Your task to perform on an android device: Go to accessibility settings Image 0: 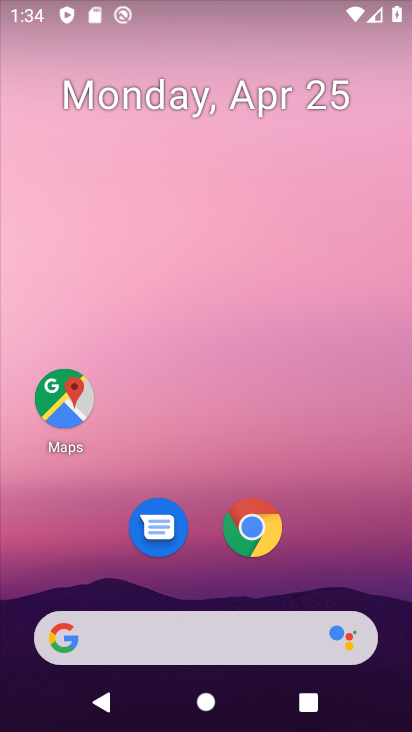
Step 0: drag from (387, 639) to (280, 1)
Your task to perform on an android device: Go to accessibility settings Image 1: 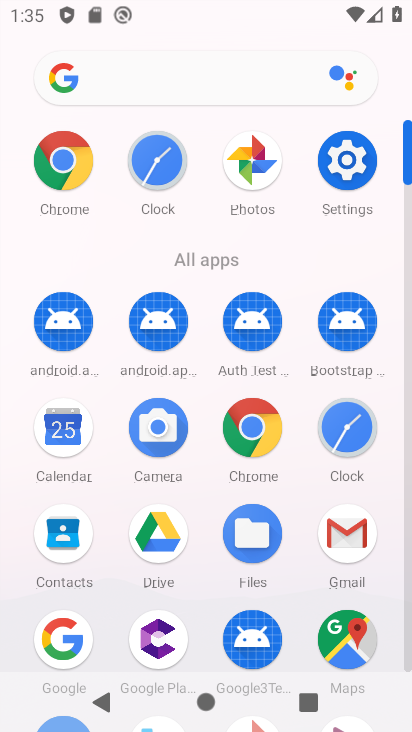
Step 1: click (348, 179)
Your task to perform on an android device: Go to accessibility settings Image 2: 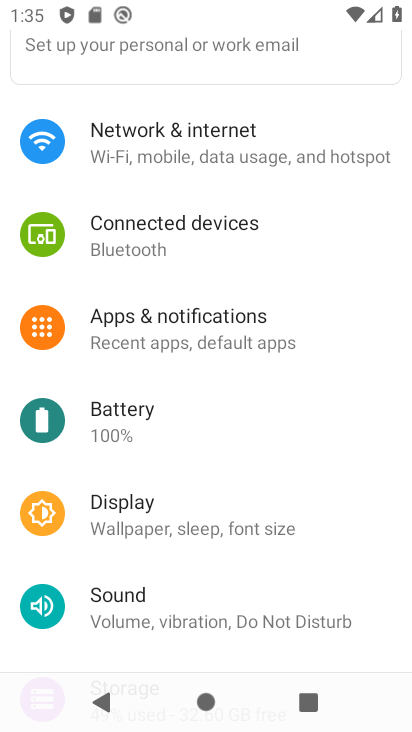
Step 2: drag from (178, 543) to (233, 73)
Your task to perform on an android device: Go to accessibility settings Image 3: 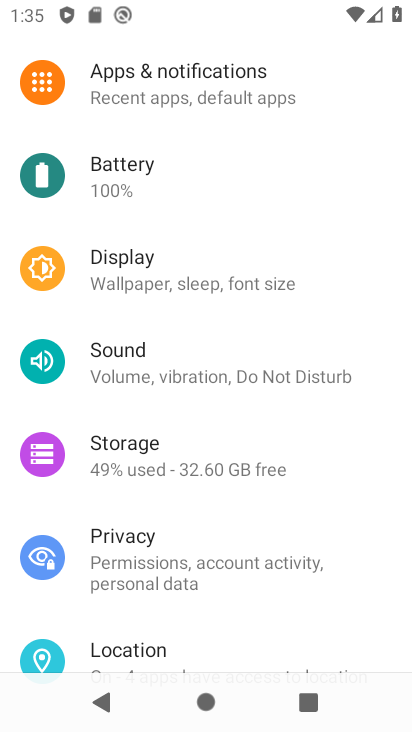
Step 3: drag from (166, 545) to (244, 83)
Your task to perform on an android device: Go to accessibility settings Image 4: 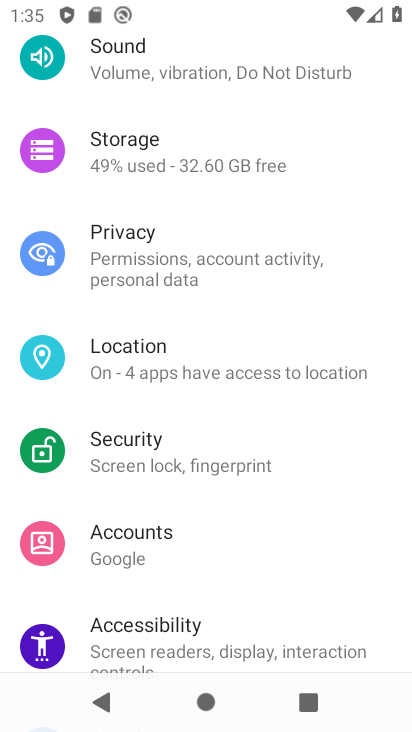
Step 4: click (191, 630)
Your task to perform on an android device: Go to accessibility settings Image 5: 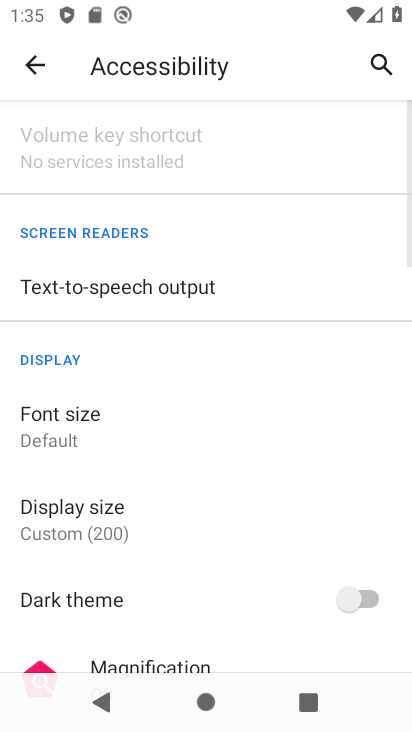
Step 5: task complete